Your task to perform on an android device: Open the calendar and show me this week's events? Image 0: 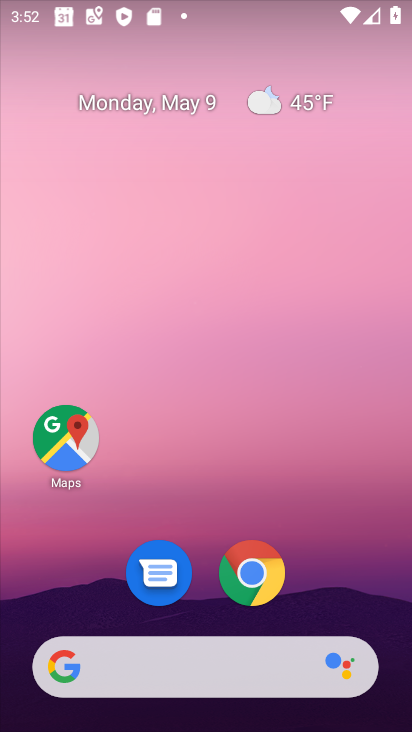
Step 0: drag from (355, 621) to (345, 0)
Your task to perform on an android device: Open the calendar and show me this week's events? Image 1: 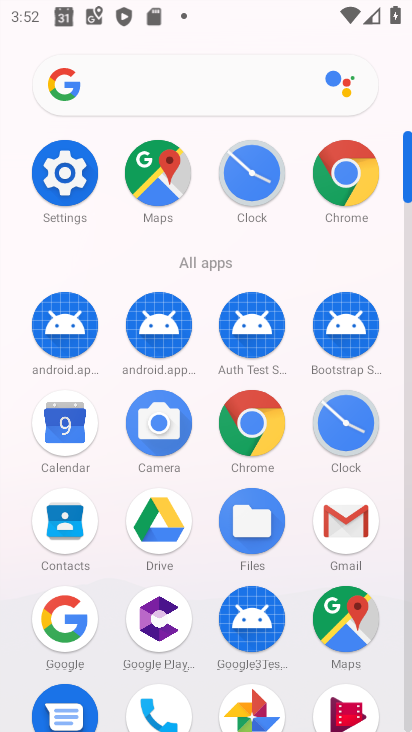
Step 1: click (49, 424)
Your task to perform on an android device: Open the calendar and show me this week's events? Image 2: 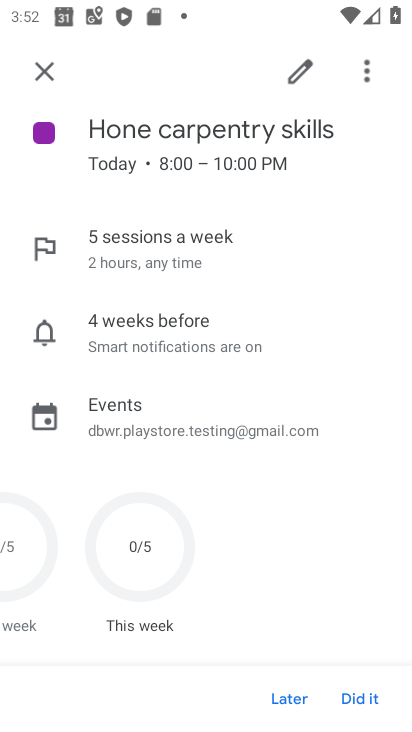
Step 2: click (27, 65)
Your task to perform on an android device: Open the calendar and show me this week's events? Image 3: 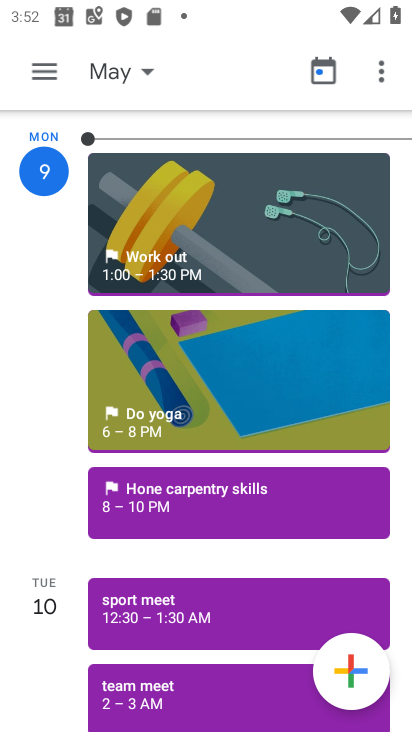
Step 3: click (40, 74)
Your task to perform on an android device: Open the calendar and show me this week's events? Image 4: 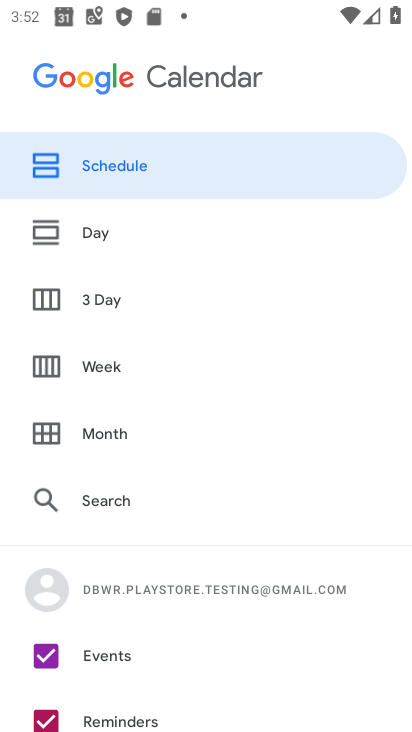
Step 4: click (107, 366)
Your task to perform on an android device: Open the calendar and show me this week's events? Image 5: 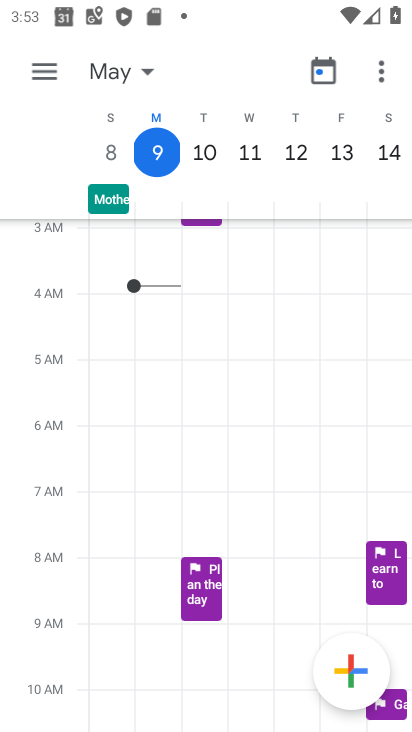
Step 5: task complete